Your task to perform on an android device: Open calendar and show me the first week of next month Image 0: 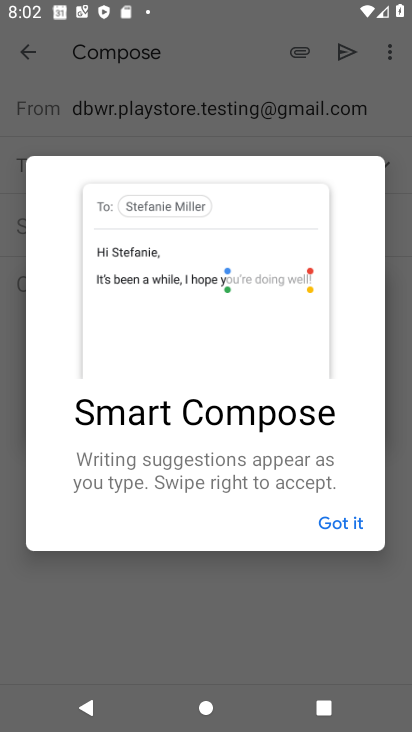
Step 0: press home button
Your task to perform on an android device: Open calendar and show me the first week of next month Image 1: 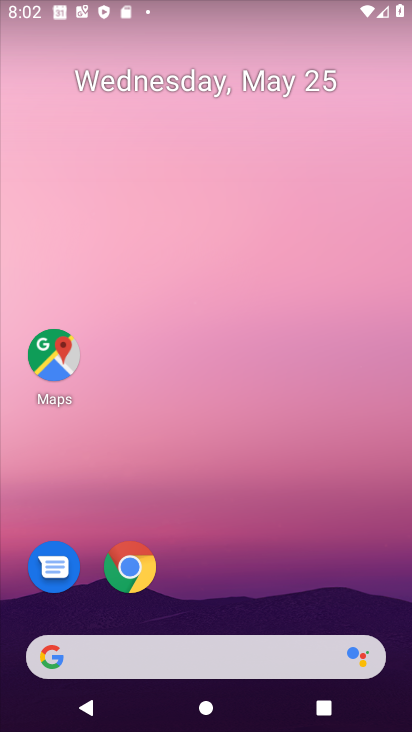
Step 1: drag from (252, 580) to (373, 48)
Your task to perform on an android device: Open calendar and show me the first week of next month Image 2: 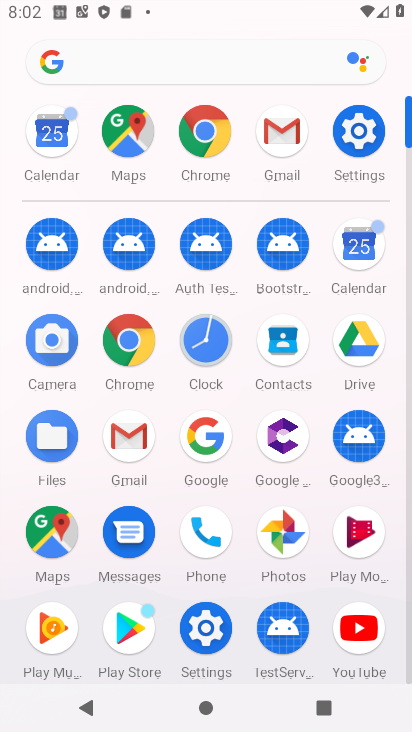
Step 2: click (41, 154)
Your task to perform on an android device: Open calendar and show me the first week of next month Image 3: 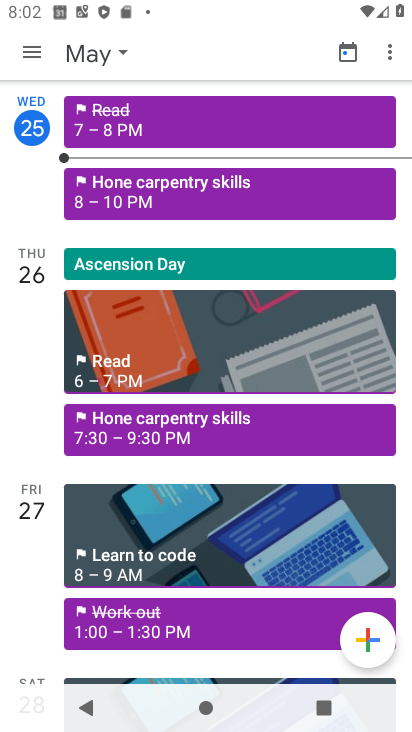
Step 3: click (116, 53)
Your task to perform on an android device: Open calendar and show me the first week of next month Image 4: 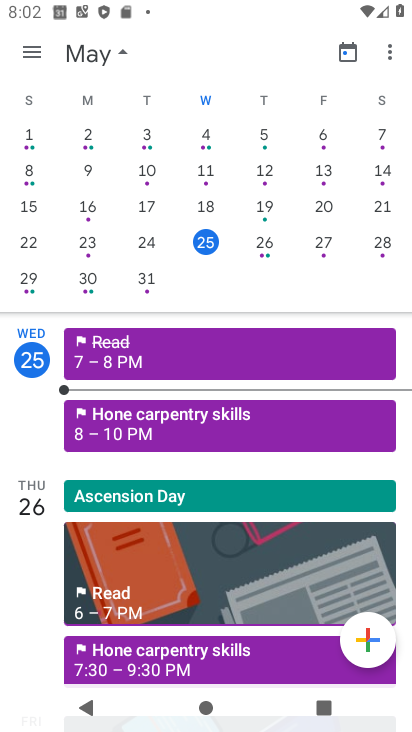
Step 4: task complete